Your task to perform on an android device: check battery use Image 0: 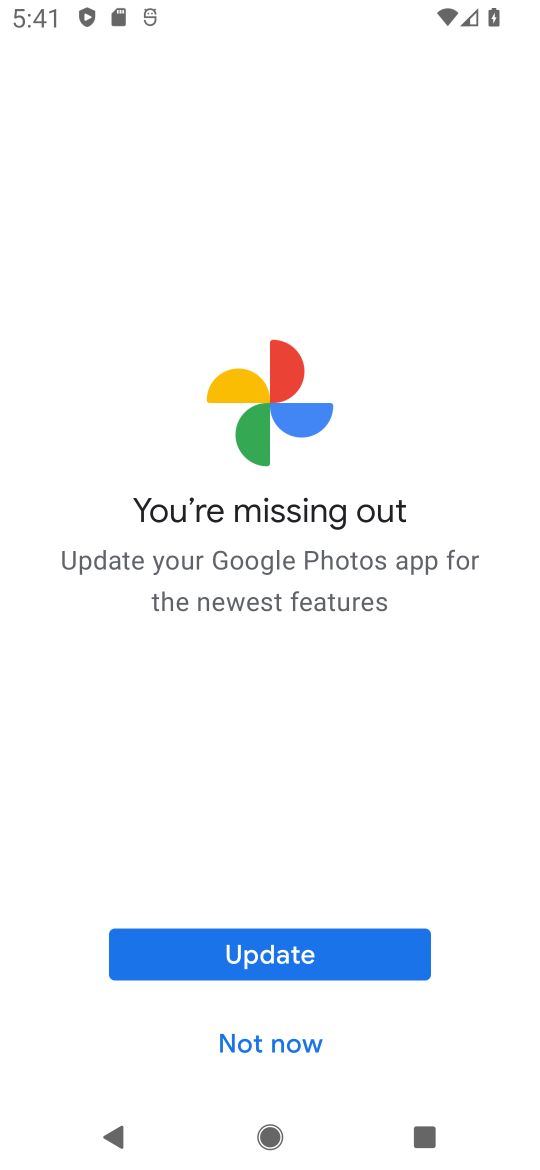
Step 0: press home button
Your task to perform on an android device: check battery use Image 1: 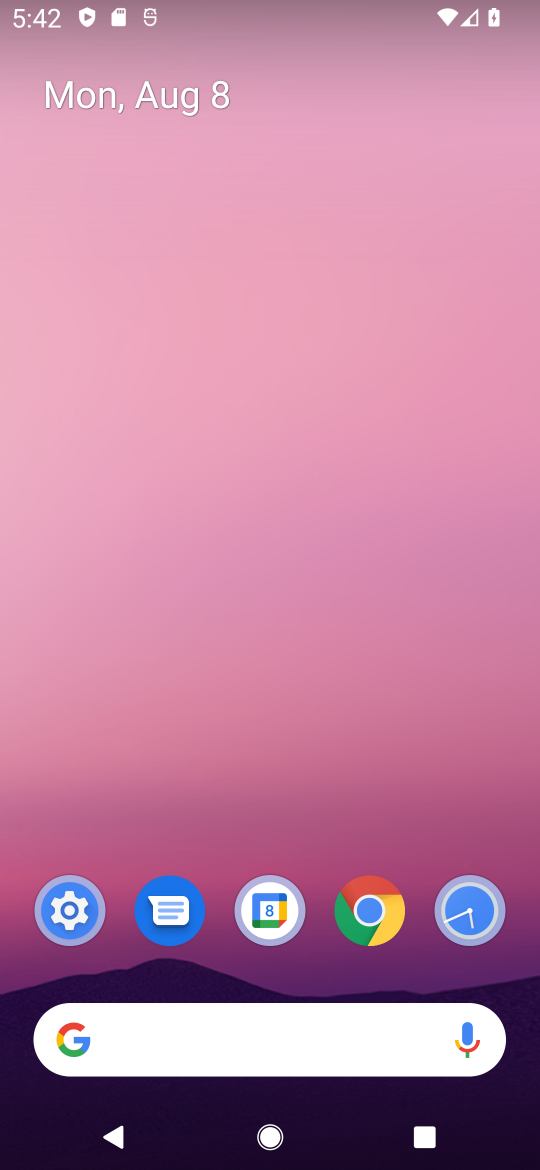
Step 1: drag from (224, 1052) to (328, 522)
Your task to perform on an android device: check battery use Image 2: 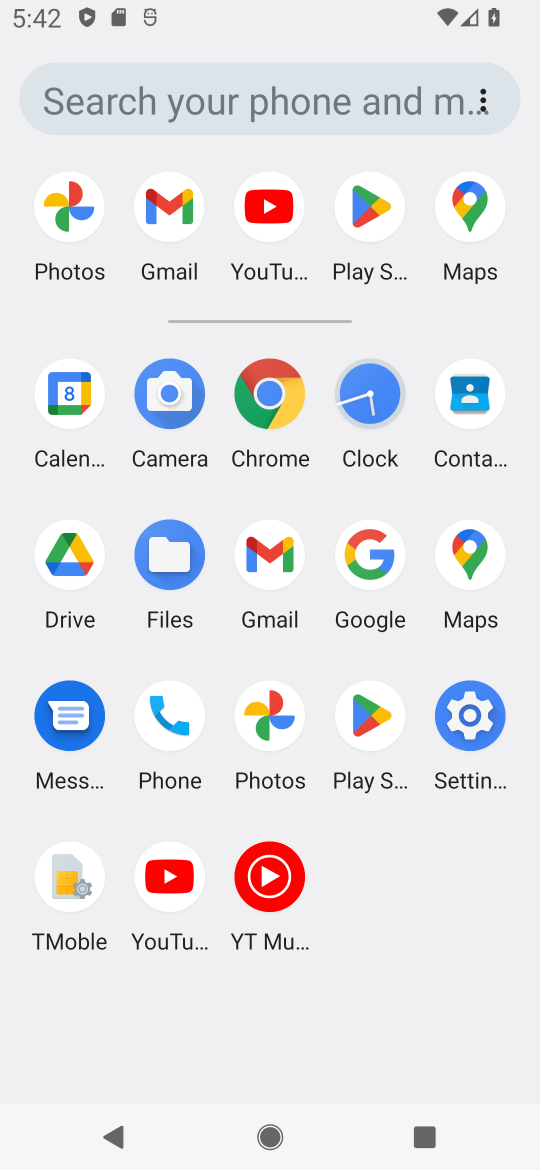
Step 2: click (470, 718)
Your task to perform on an android device: check battery use Image 3: 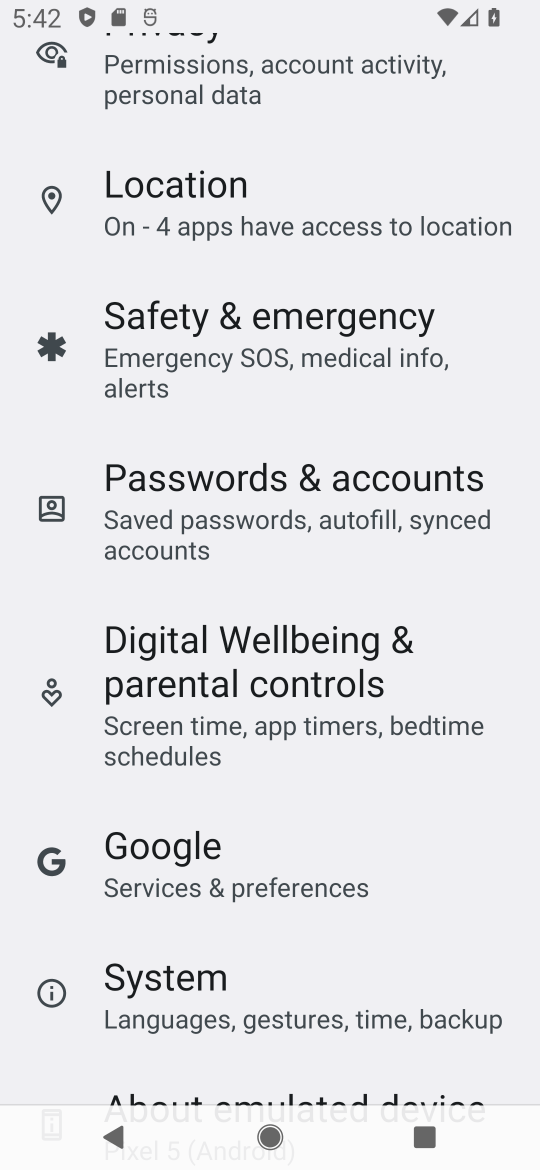
Step 3: drag from (362, 434) to (348, 694)
Your task to perform on an android device: check battery use Image 4: 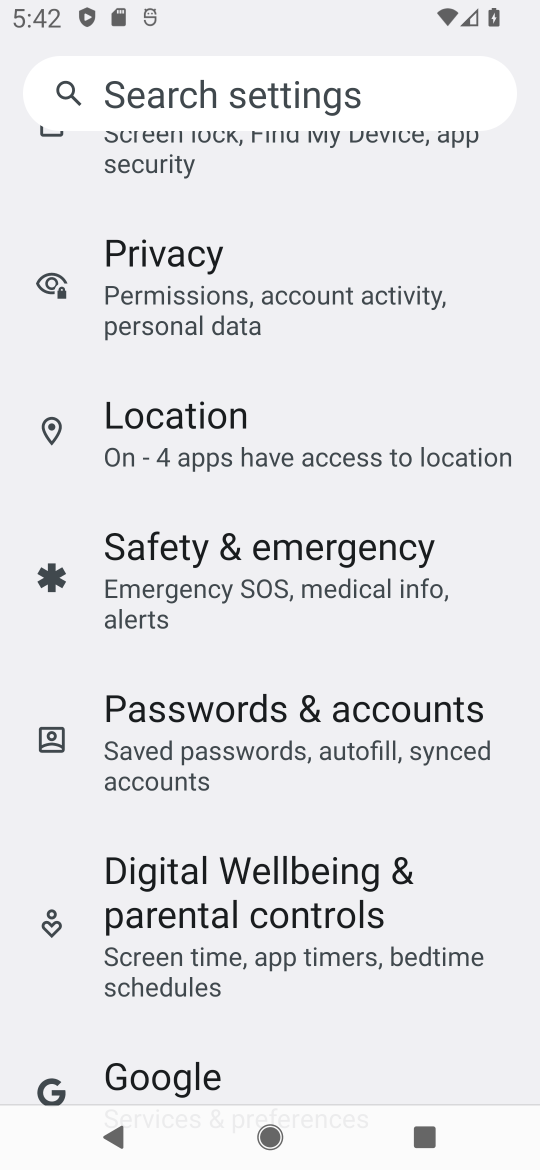
Step 4: drag from (327, 415) to (354, 723)
Your task to perform on an android device: check battery use Image 5: 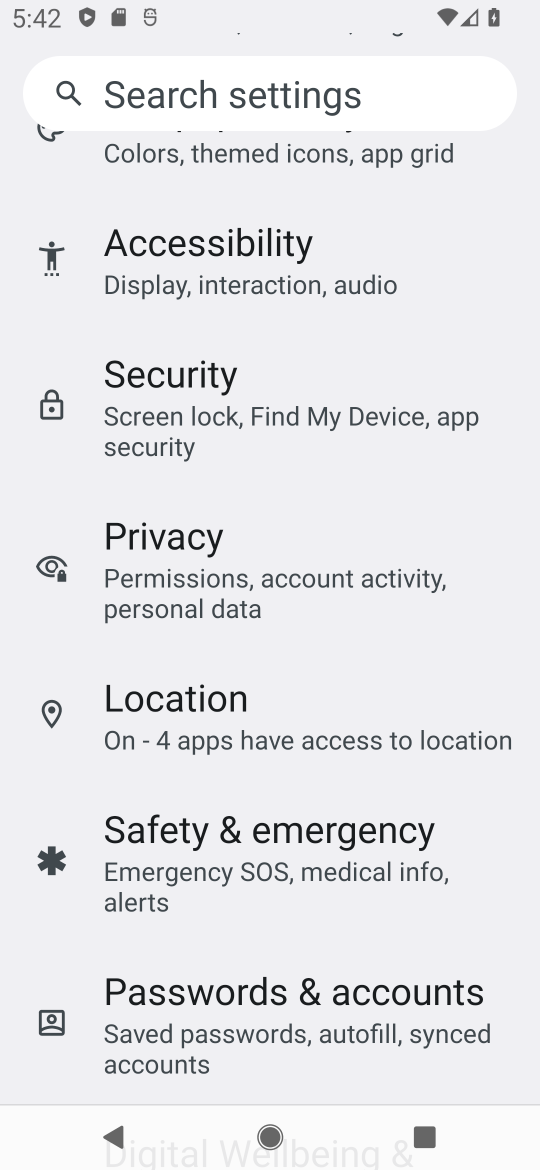
Step 5: drag from (321, 520) to (348, 704)
Your task to perform on an android device: check battery use Image 6: 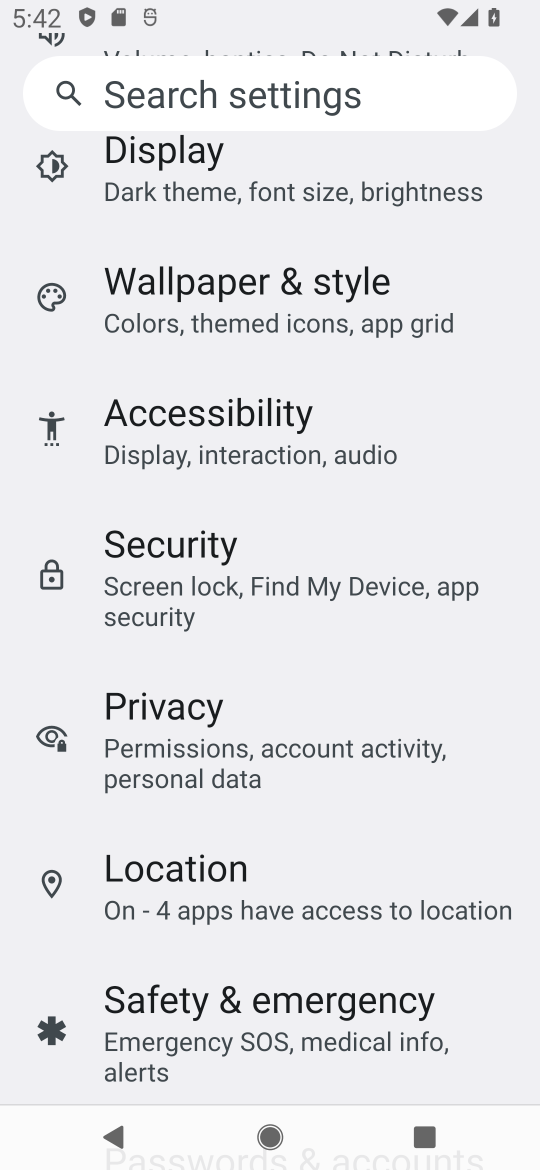
Step 6: drag from (303, 496) to (314, 652)
Your task to perform on an android device: check battery use Image 7: 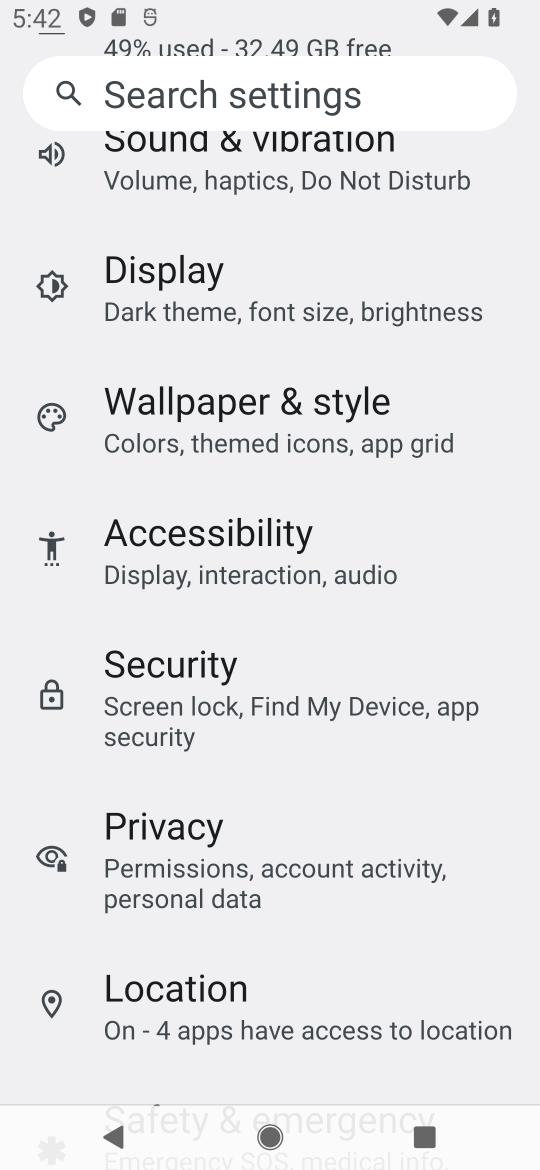
Step 7: drag from (302, 472) to (328, 613)
Your task to perform on an android device: check battery use Image 8: 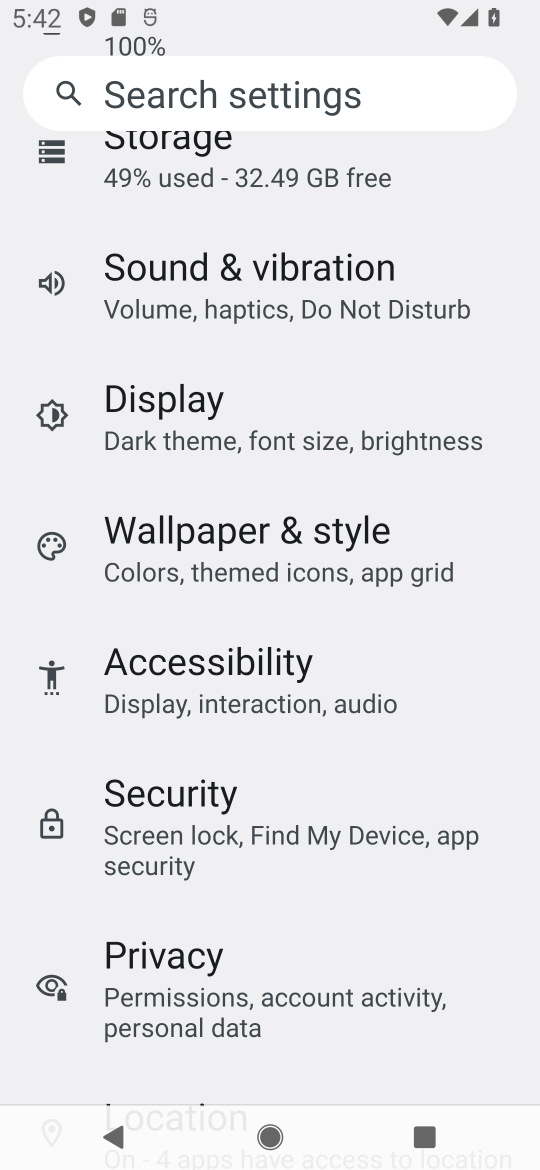
Step 8: drag from (282, 357) to (306, 560)
Your task to perform on an android device: check battery use Image 9: 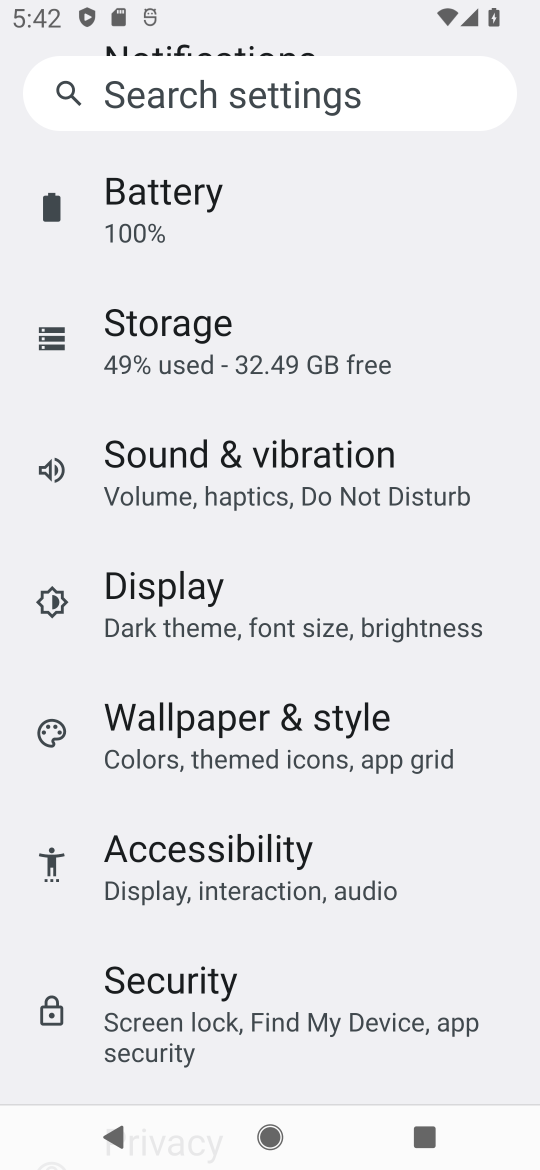
Step 9: click (182, 199)
Your task to perform on an android device: check battery use Image 10: 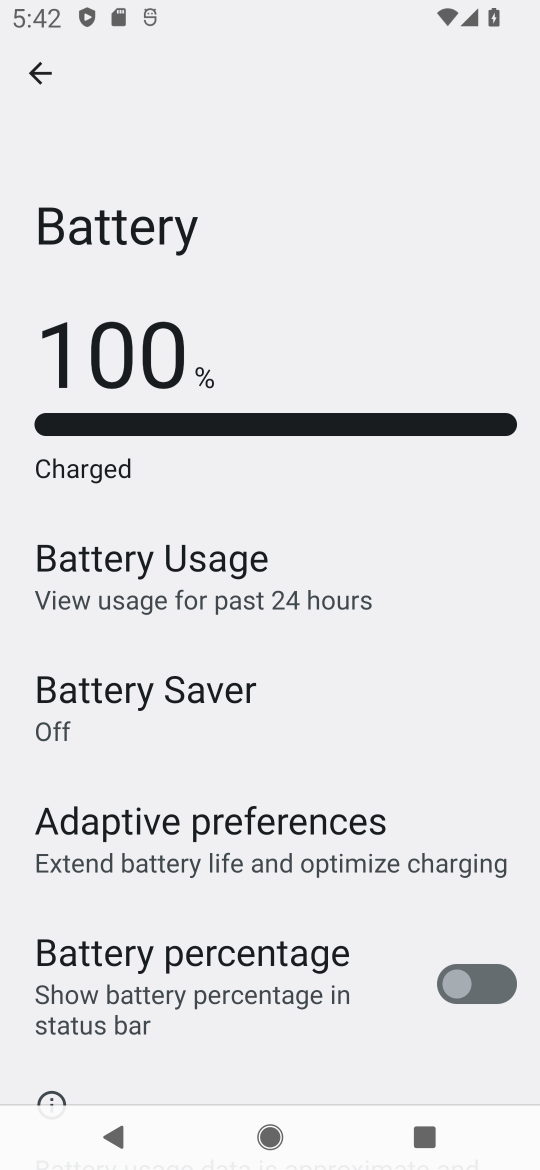
Step 10: task complete